Your task to perform on an android device: toggle airplane mode Image 0: 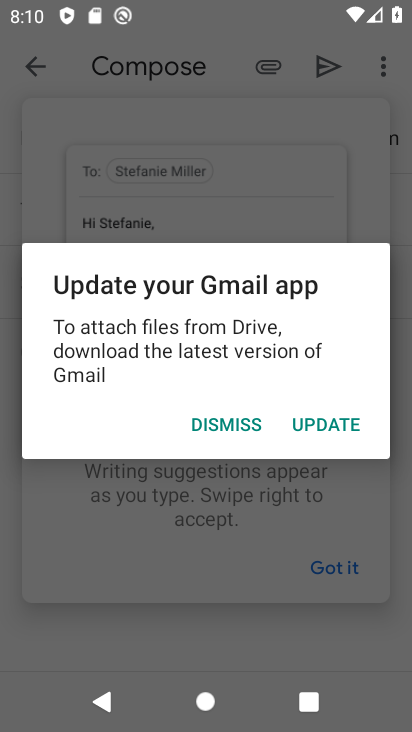
Step 0: press home button
Your task to perform on an android device: toggle airplane mode Image 1: 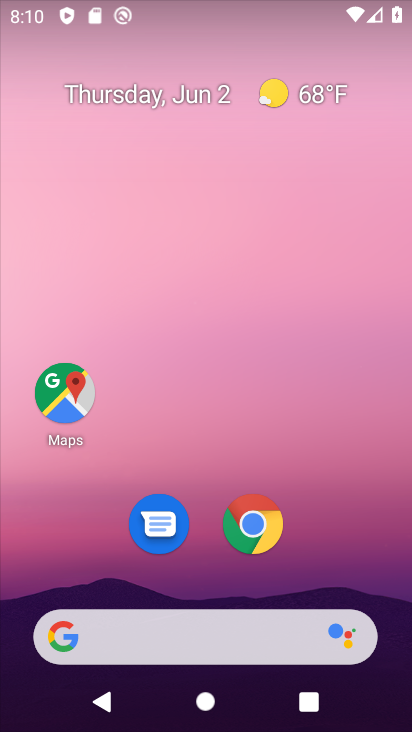
Step 1: drag from (303, 531) to (254, 11)
Your task to perform on an android device: toggle airplane mode Image 2: 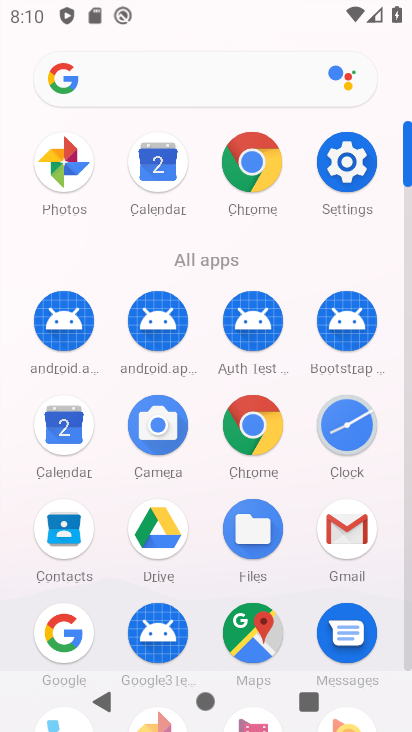
Step 2: click (343, 143)
Your task to perform on an android device: toggle airplane mode Image 3: 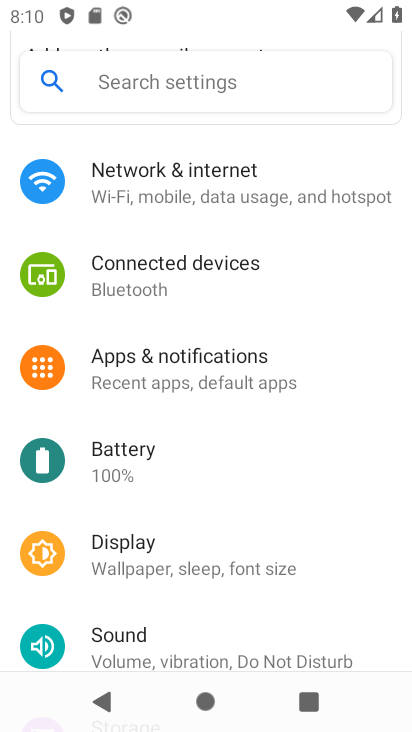
Step 3: click (298, 192)
Your task to perform on an android device: toggle airplane mode Image 4: 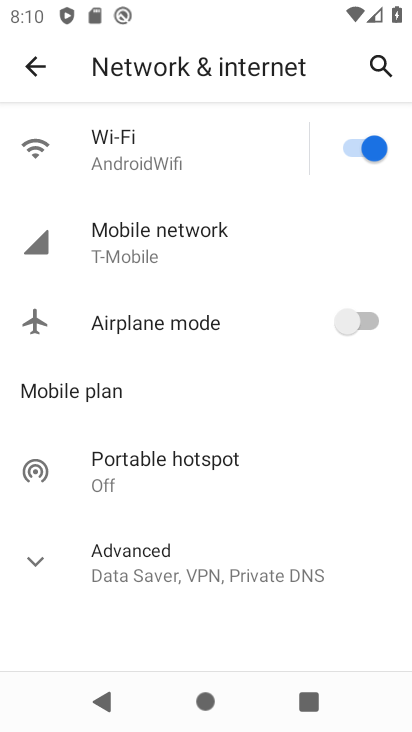
Step 4: click (367, 313)
Your task to perform on an android device: toggle airplane mode Image 5: 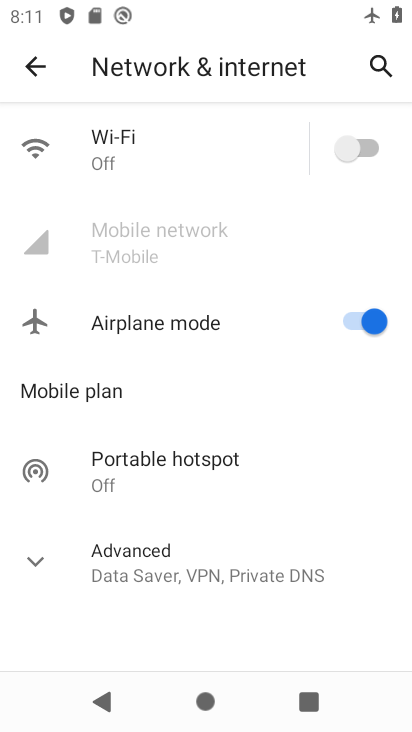
Step 5: task complete